Your task to perform on an android device: Check the weather Image 0: 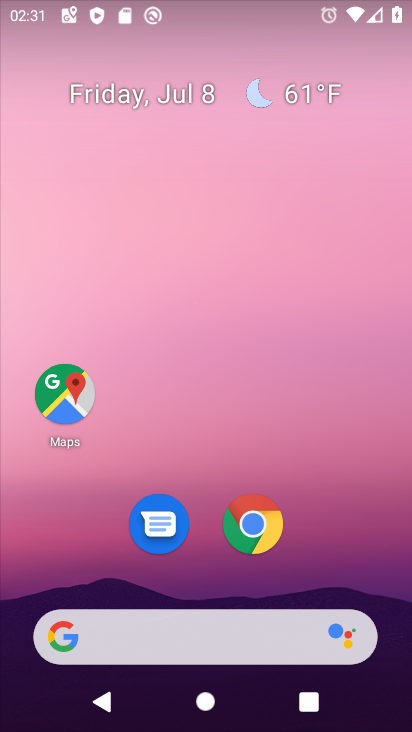
Step 0: click (256, 649)
Your task to perform on an android device: Check the weather Image 1: 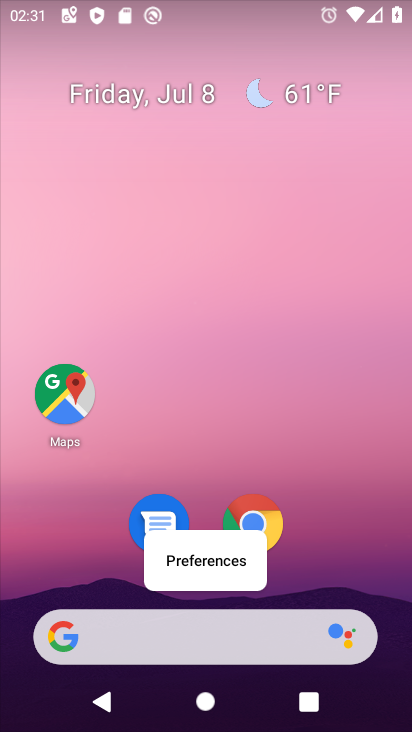
Step 1: click (203, 627)
Your task to perform on an android device: Check the weather Image 2: 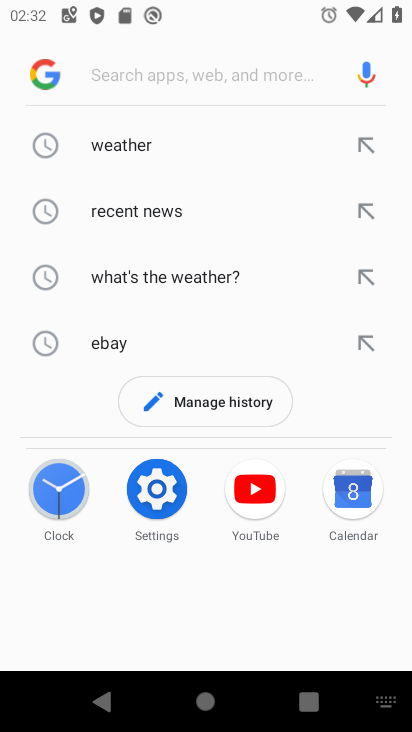
Step 2: click (131, 147)
Your task to perform on an android device: Check the weather Image 3: 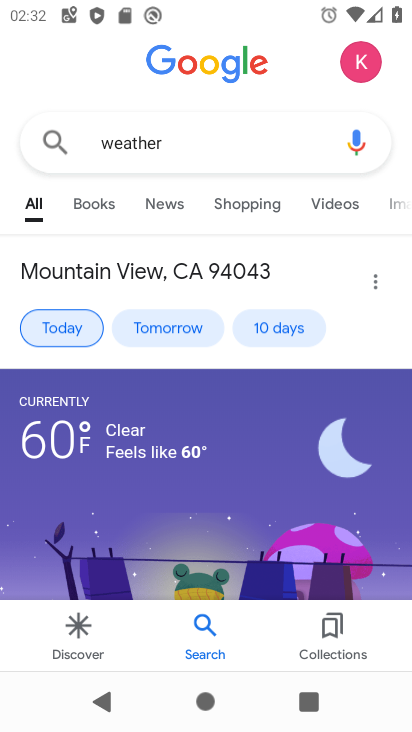
Step 3: task complete